Your task to perform on an android device: delete location history Image 0: 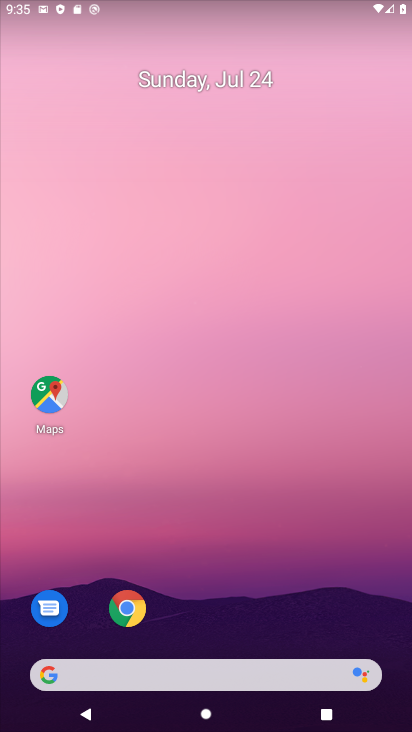
Step 0: press home button
Your task to perform on an android device: delete location history Image 1: 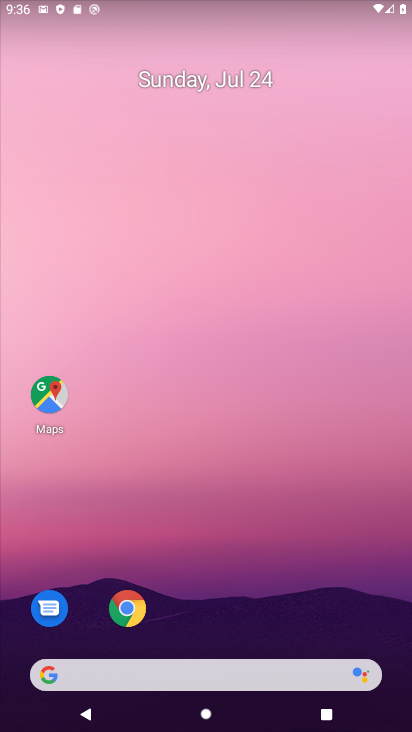
Step 1: click (50, 385)
Your task to perform on an android device: delete location history Image 2: 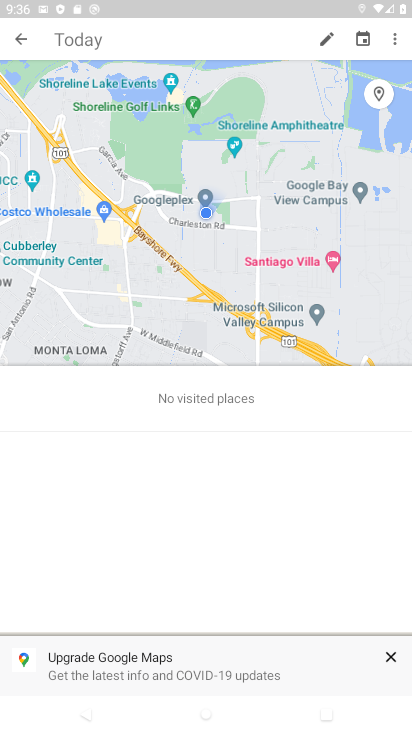
Step 2: click (397, 35)
Your task to perform on an android device: delete location history Image 3: 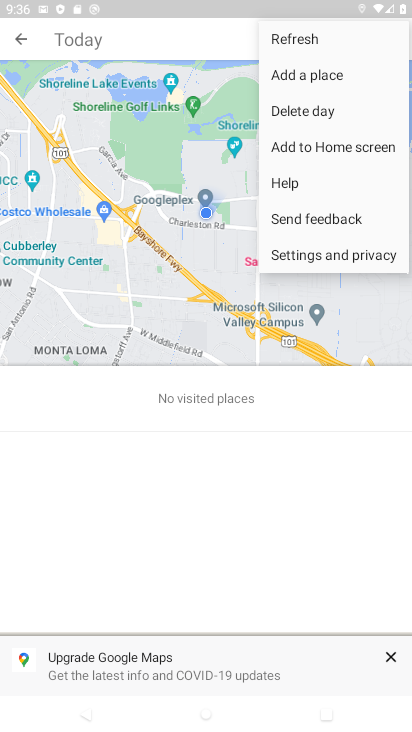
Step 3: click (336, 259)
Your task to perform on an android device: delete location history Image 4: 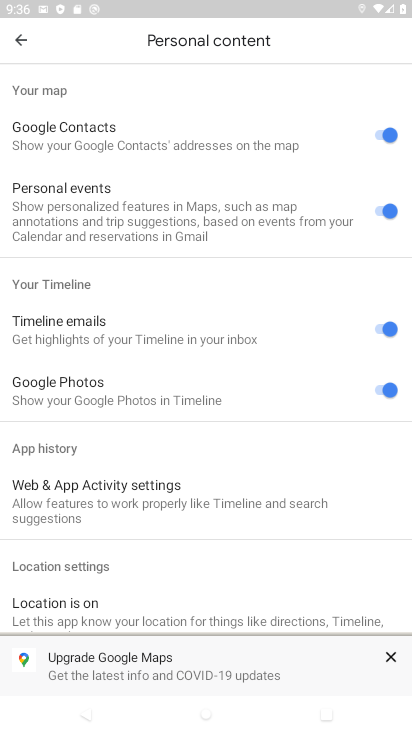
Step 4: drag from (211, 576) to (207, 186)
Your task to perform on an android device: delete location history Image 5: 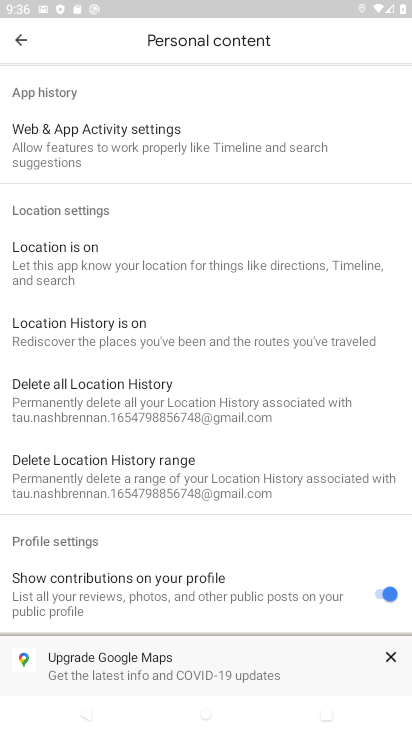
Step 5: click (231, 398)
Your task to perform on an android device: delete location history Image 6: 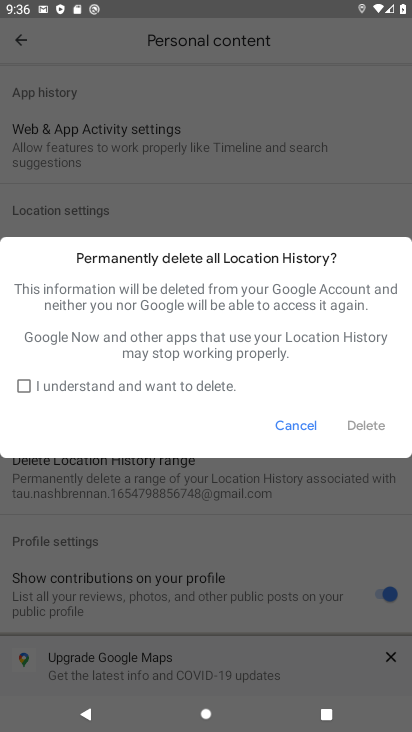
Step 6: click (16, 384)
Your task to perform on an android device: delete location history Image 7: 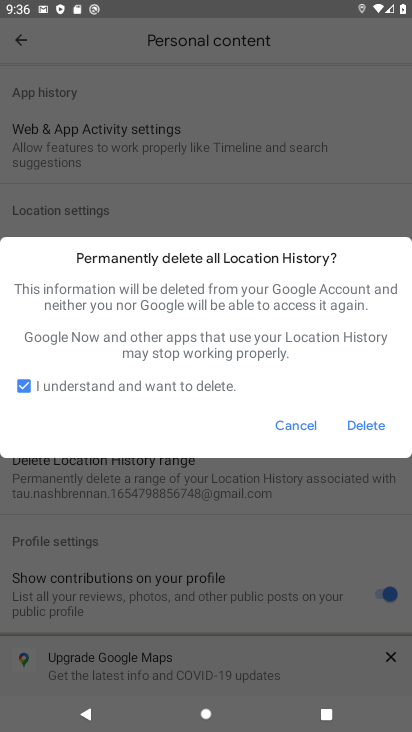
Step 7: click (371, 423)
Your task to perform on an android device: delete location history Image 8: 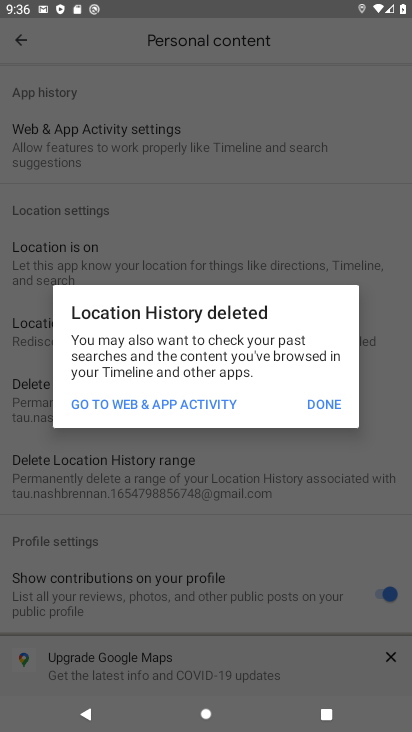
Step 8: task complete